Your task to perform on an android device: refresh tabs in the chrome app Image 0: 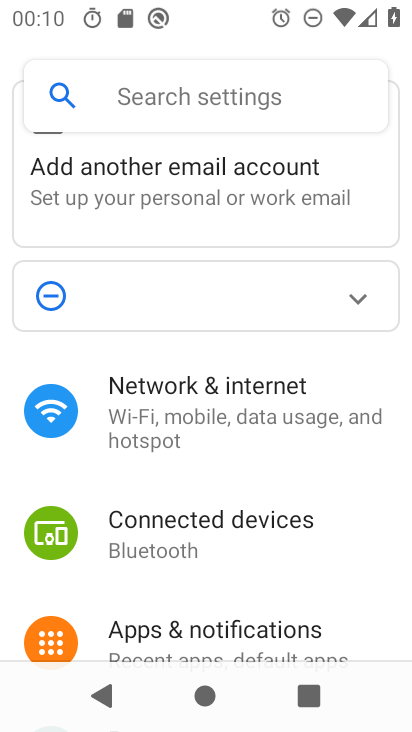
Step 0: click (403, 73)
Your task to perform on an android device: refresh tabs in the chrome app Image 1: 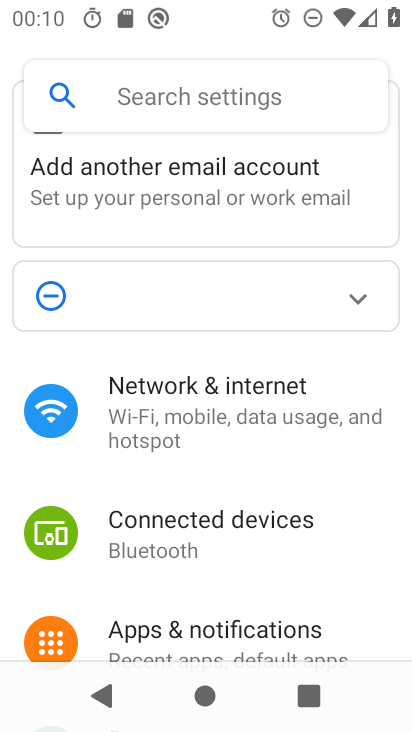
Step 1: drag from (350, 624) to (407, 235)
Your task to perform on an android device: refresh tabs in the chrome app Image 2: 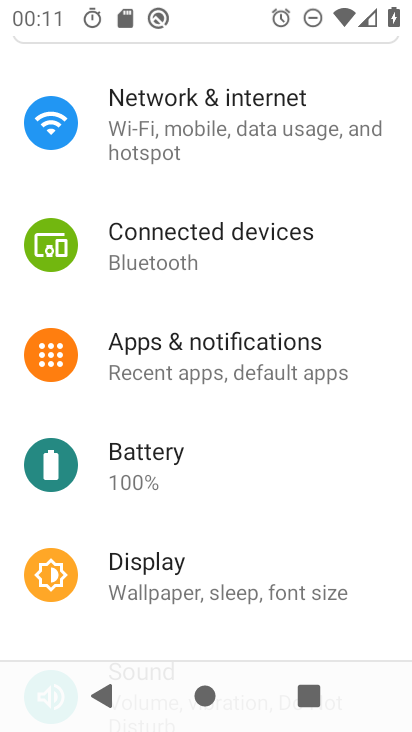
Step 2: press home button
Your task to perform on an android device: refresh tabs in the chrome app Image 3: 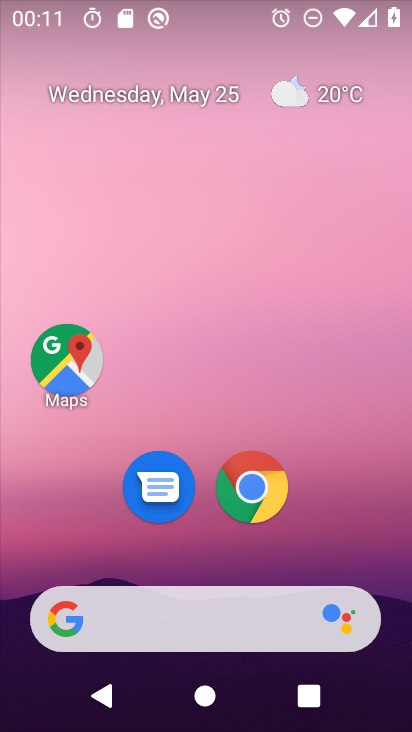
Step 3: click (252, 488)
Your task to perform on an android device: refresh tabs in the chrome app Image 4: 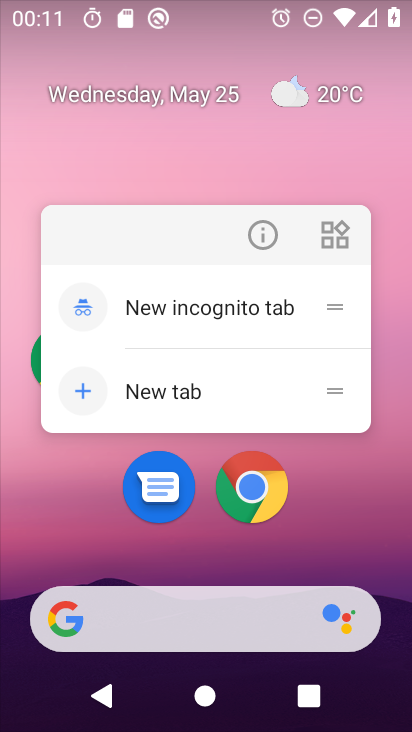
Step 4: click (252, 488)
Your task to perform on an android device: refresh tabs in the chrome app Image 5: 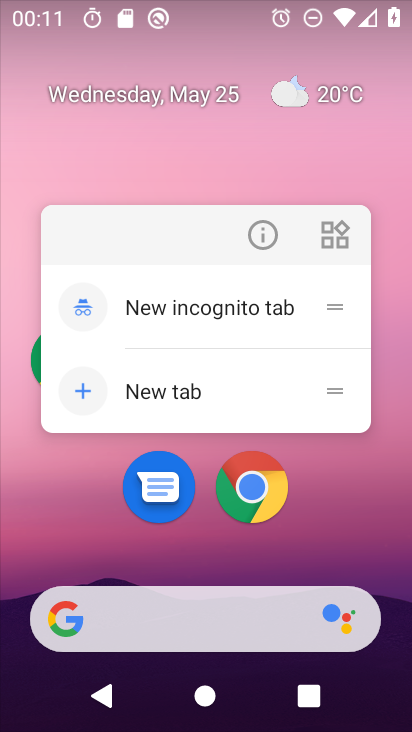
Step 5: click (252, 487)
Your task to perform on an android device: refresh tabs in the chrome app Image 6: 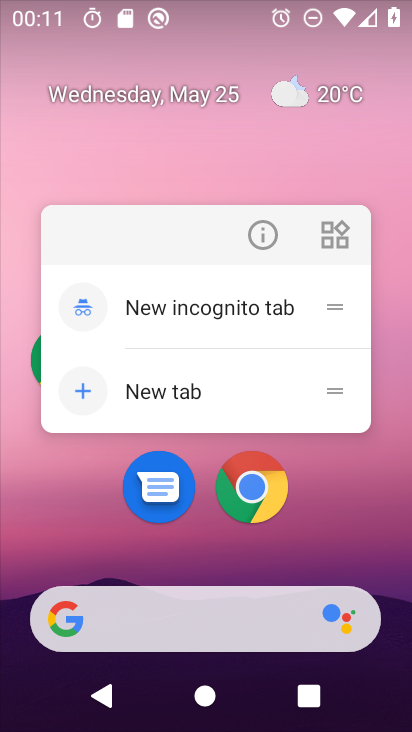
Step 6: click (252, 487)
Your task to perform on an android device: refresh tabs in the chrome app Image 7: 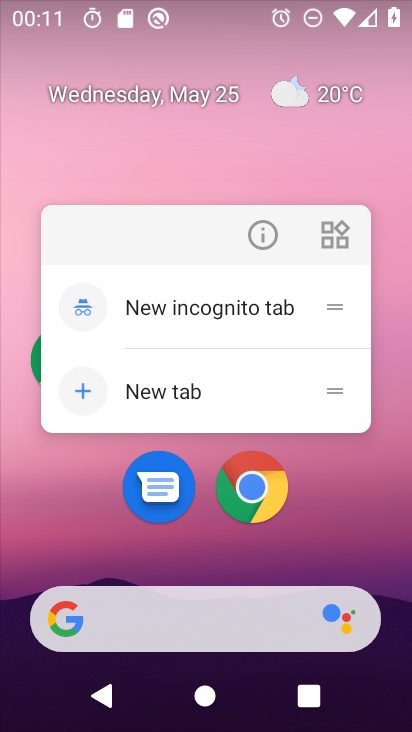
Step 7: click (252, 491)
Your task to perform on an android device: refresh tabs in the chrome app Image 8: 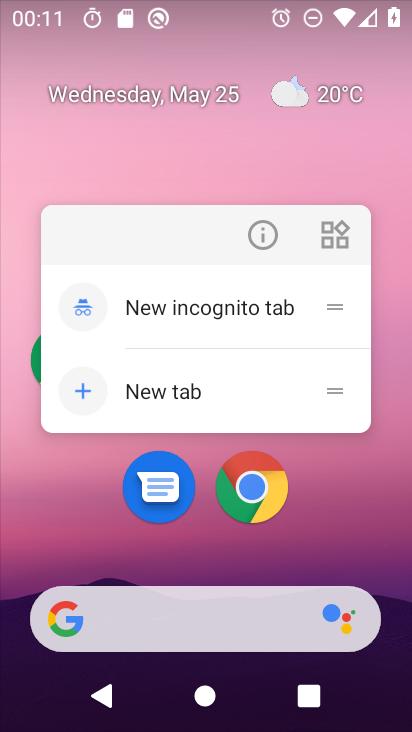
Step 8: click (252, 491)
Your task to perform on an android device: refresh tabs in the chrome app Image 9: 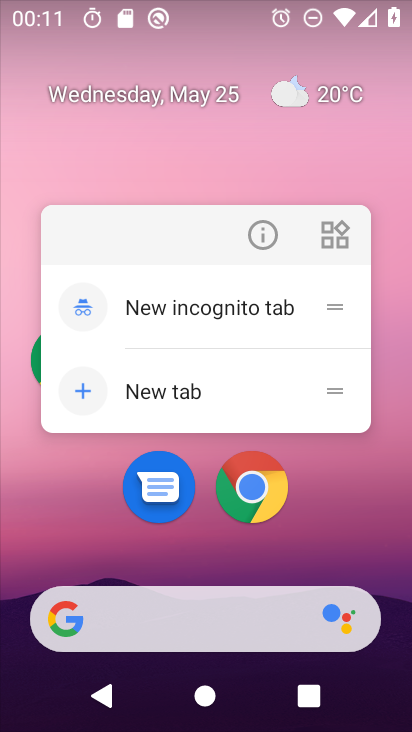
Step 9: click (252, 491)
Your task to perform on an android device: refresh tabs in the chrome app Image 10: 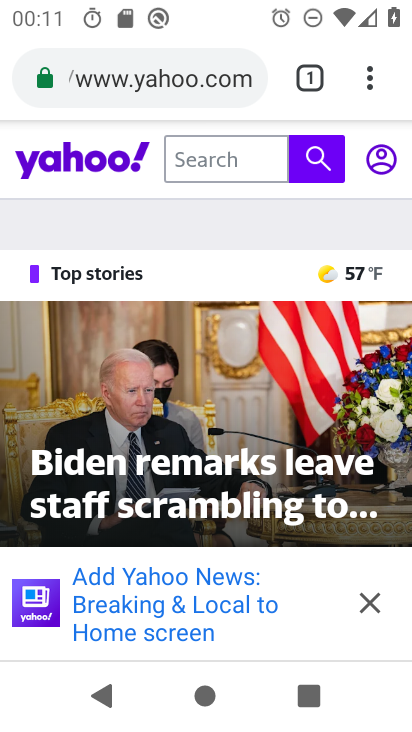
Step 10: click (367, 82)
Your task to perform on an android device: refresh tabs in the chrome app Image 11: 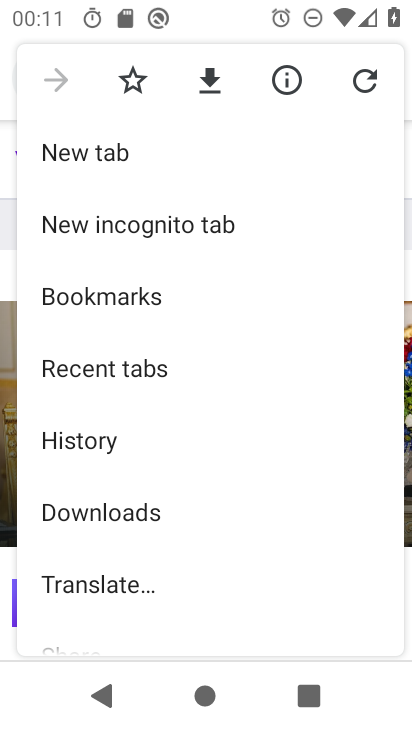
Step 11: click (364, 79)
Your task to perform on an android device: refresh tabs in the chrome app Image 12: 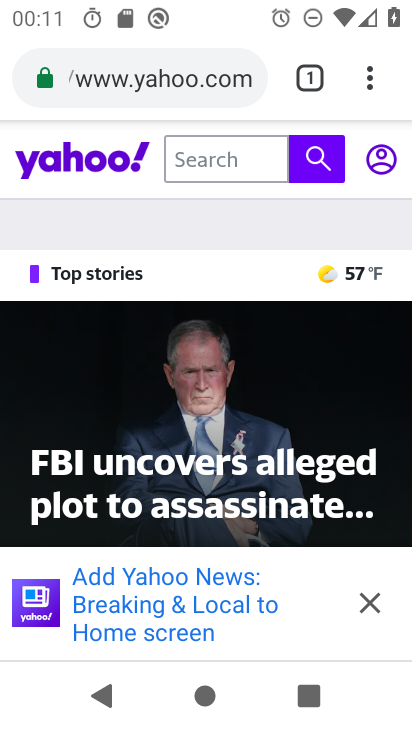
Step 12: task complete